Your task to perform on an android device: Search for "alienware aurora" on target.com, select the first entry, add it to the cart, then select checkout. Image 0: 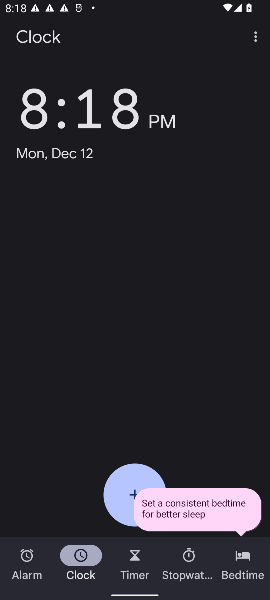
Step 0: press home button
Your task to perform on an android device: Search for "alienware aurora" on target.com, select the first entry, add it to the cart, then select checkout. Image 1: 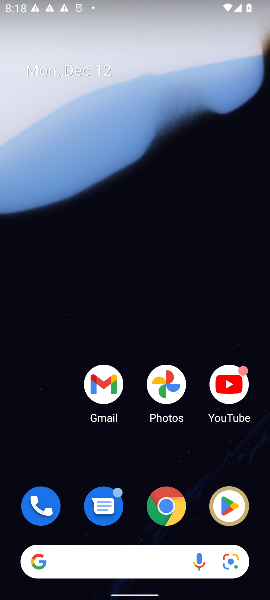
Step 1: click (92, 554)
Your task to perform on an android device: Search for "alienware aurora" on target.com, select the first entry, add it to the cart, then select checkout. Image 2: 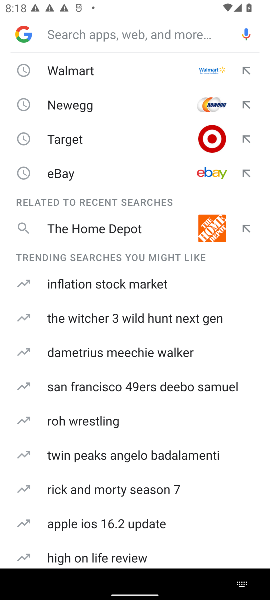
Step 2: type "target"
Your task to perform on an android device: Search for "alienware aurora" on target.com, select the first entry, add it to the cart, then select checkout. Image 3: 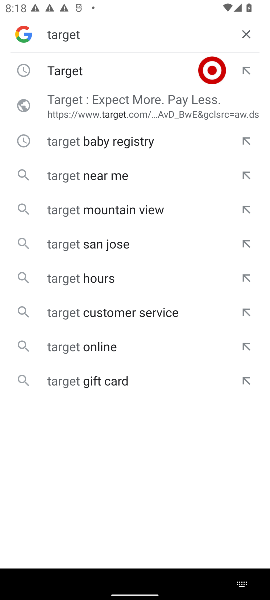
Step 3: click (100, 75)
Your task to perform on an android device: Search for "alienware aurora" on target.com, select the first entry, add it to the cart, then select checkout. Image 4: 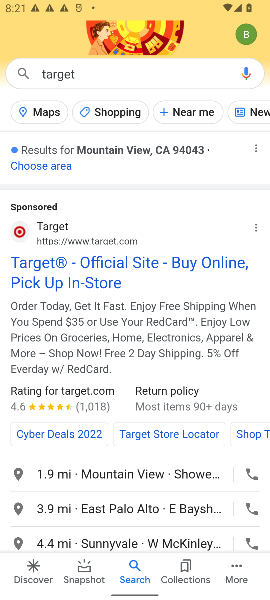
Step 4: click (97, 258)
Your task to perform on an android device: Search for "alienware aurora" on target.com, select the first entry, add it to the cart, then select checkout. Image 5: 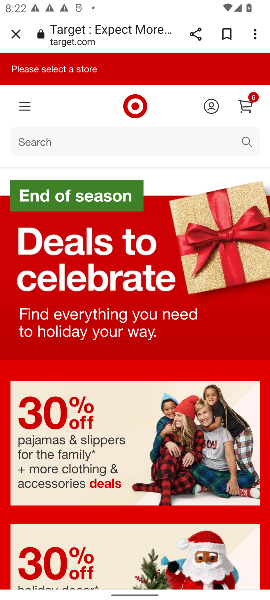
Step 5: click (38, 140)
Your task to perform on an android device: Search for "alienware aurora" on target.com, select the first entry, add it to the cart, then select checkout. Image 6: 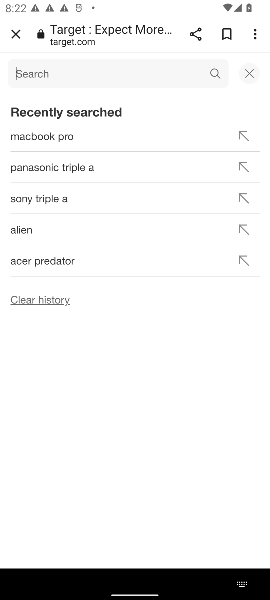
Step 6: type "alienware aurora"
Your task to perform on an android device: Search for "alienware aurora" on target.com, select the first entry, add it to the cart, then select checkout. Image 7: 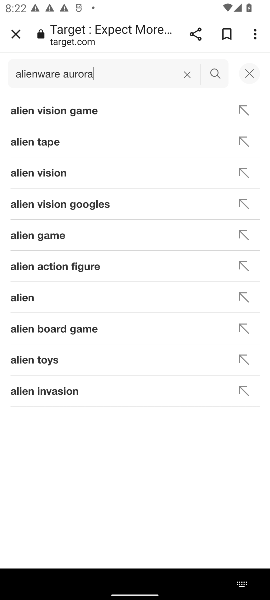
Step 7: click (202, 78)
Your task to perform on an android device: Search for "alienware aurora" on target.com, select the first entry, add it to the cart, then select checkout. Image 8: 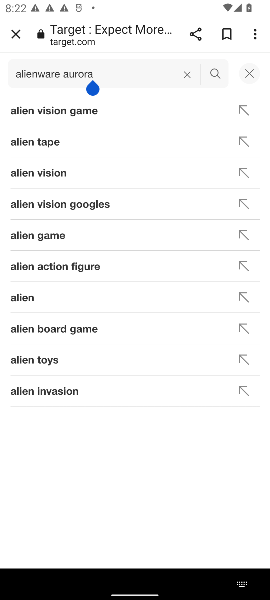
Step 8: click (214, 80)
Your task to perform on an android device: Search for "alienware aurora" on target.com, select the first entry, add it to the cart, then select checkout. Image 9: 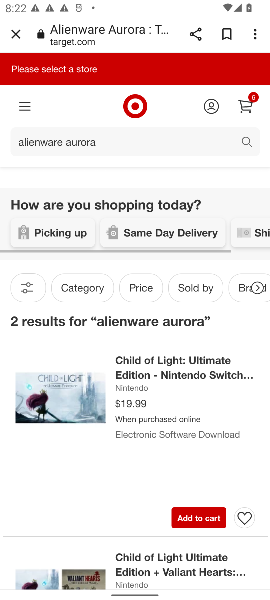
Step 9: click (177, 505)
Your task to perform on an android device: Search for "alienware aurora" on target.com, select the first entry, add it to the cart, then select checkout. Image 10: 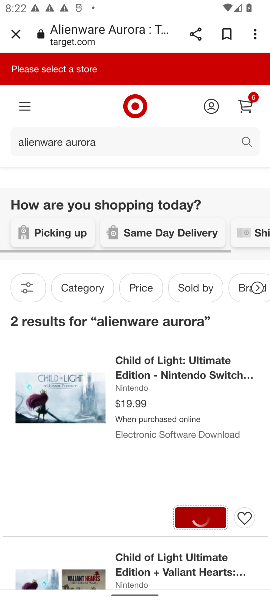
Step 10: task complete